Your task to perform on an android device: add a contact in the contacts app Image 0: 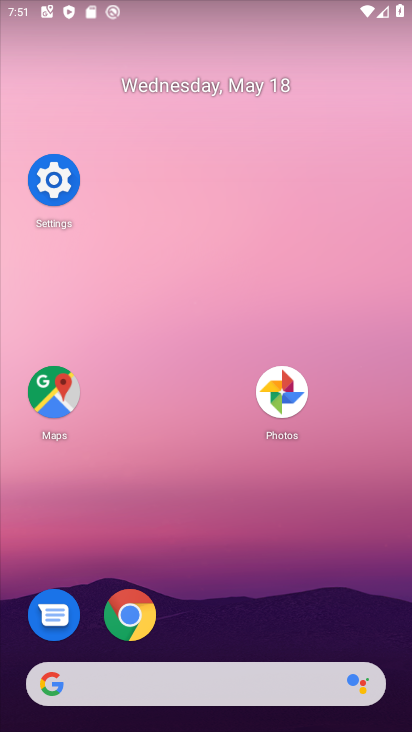
Step 0: drag from (222, 647) to (242, 173)
Your task to perform on an android device: add a contact in the contacts app Image 1: 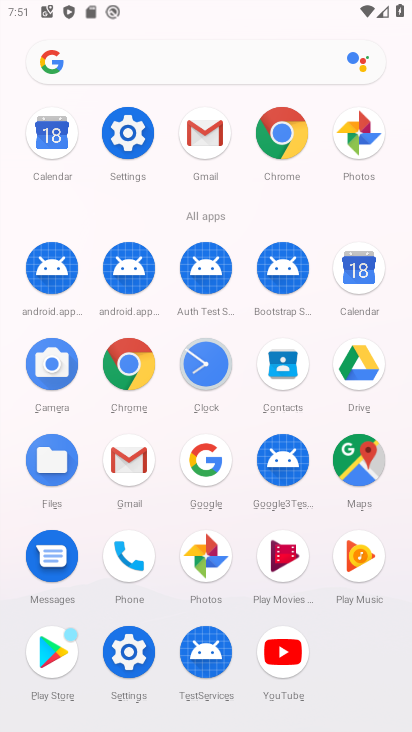
Step 1: drag from (287, 375) to (82, 299)
Your task to perform on an android device: add a contact in the contacts app Image 2: 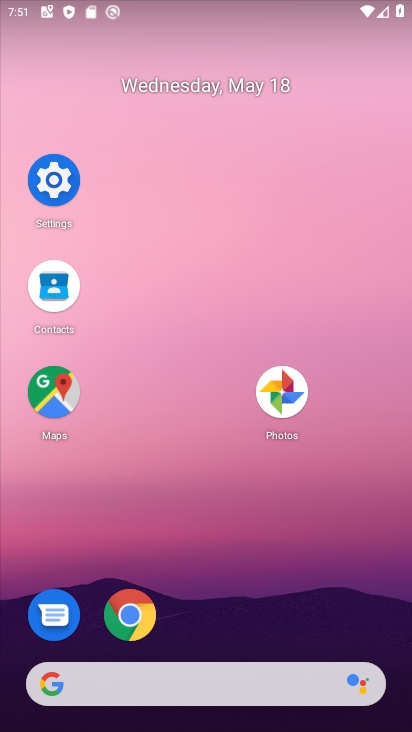
Step 2: click (64, 285)
Your task to perform on an android device: add a contact in the contacts app Image 3: 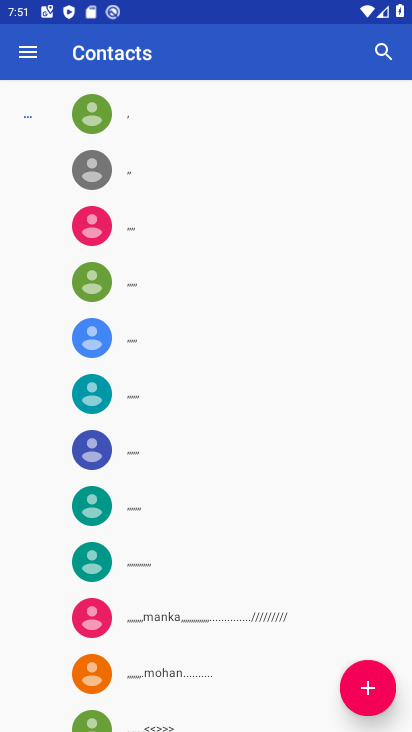
Step 3: click (369, 681)
Your task to perform on an android device: add a contact in the contacts app Image 4: 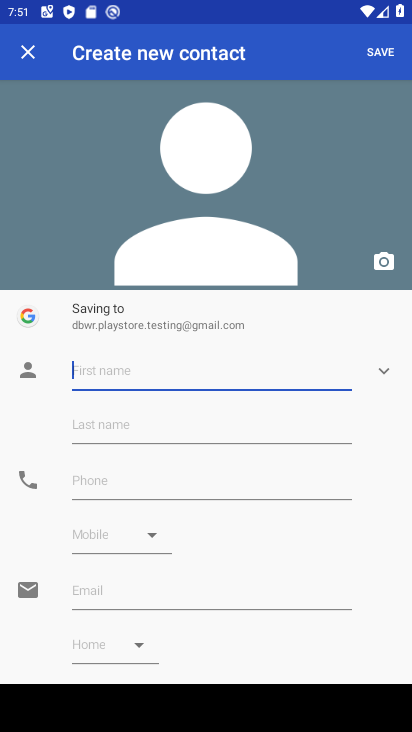
Step 4: type "ddbb"
Your task to perform on an android device: add a contact in the contacts app Image 5: 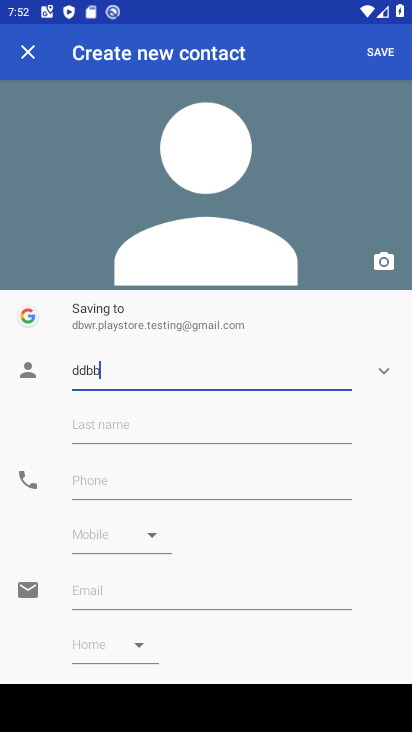
Step 5: click (126, 478)
Your task to perform on an android device: add a contact in the contacts app Image 6: 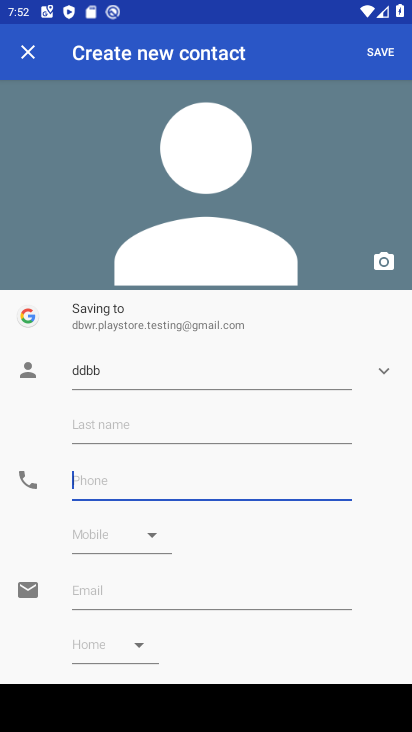
Step 6: type "9987889078"
Your task to perform on an android device: add a contact in the contacts app Image 7: 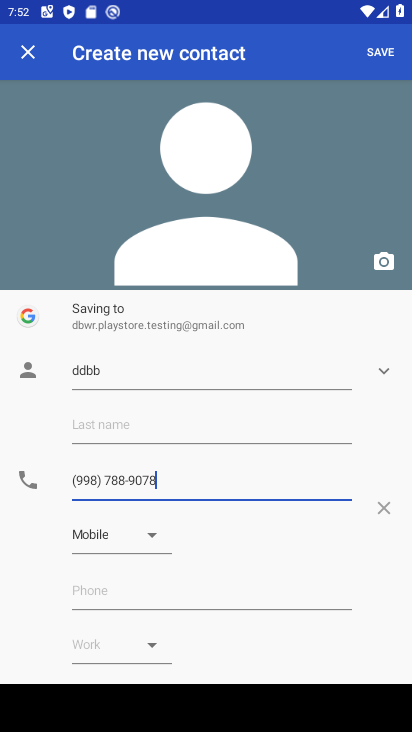
Step 7: click (379, 58)
Your task to perform on an android device: add a contact in the contacts app Image 8: 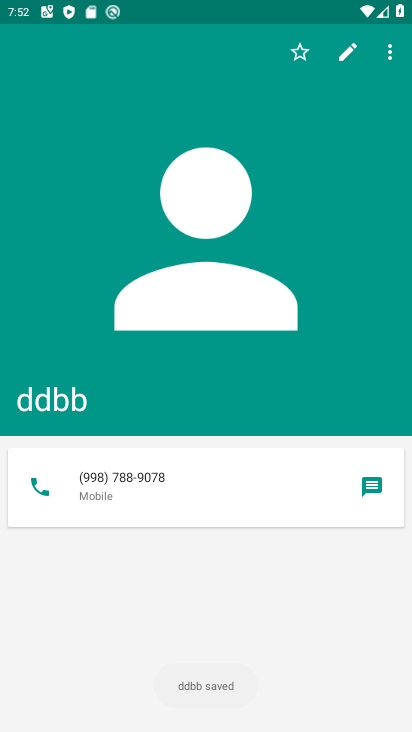
Step 8: task complete